Your task to perform on an android device: toggle javascript in the chrome app Image 0: 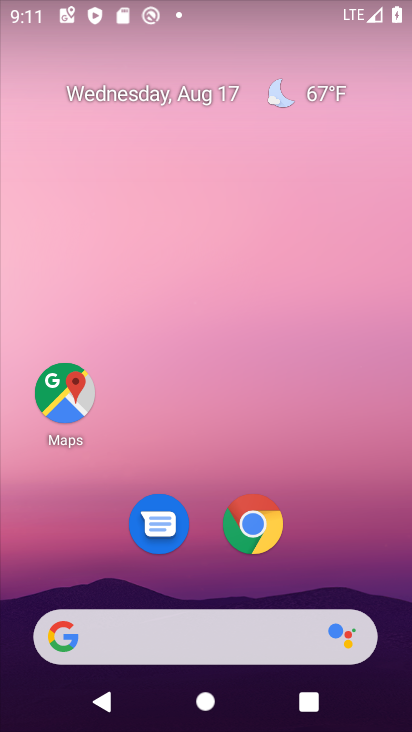
Step 0: click (253, 520)
Your task to perform on an android device: toggle javascript in the chrome app Image 1: 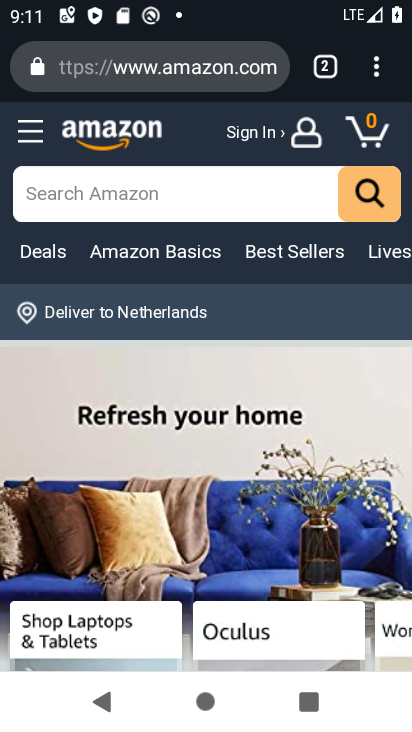
Step 1: press back button
Your task to perform on an android device: toggle javascript in the chrome app Image 2: 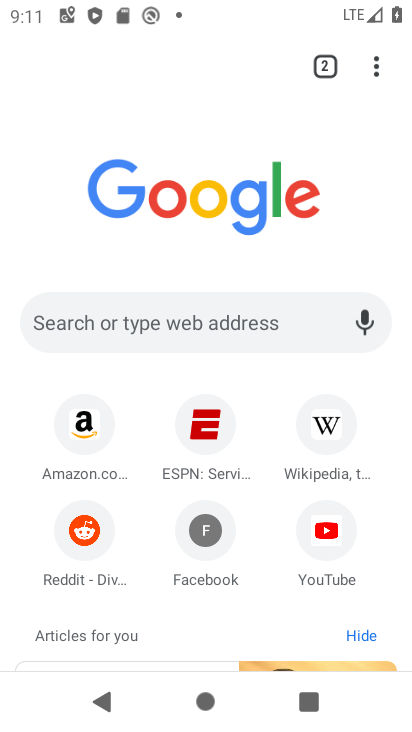
Step 2: click (375, 77)
Your task to perform on an android device: toggle javascript in the chrome app Image 3: 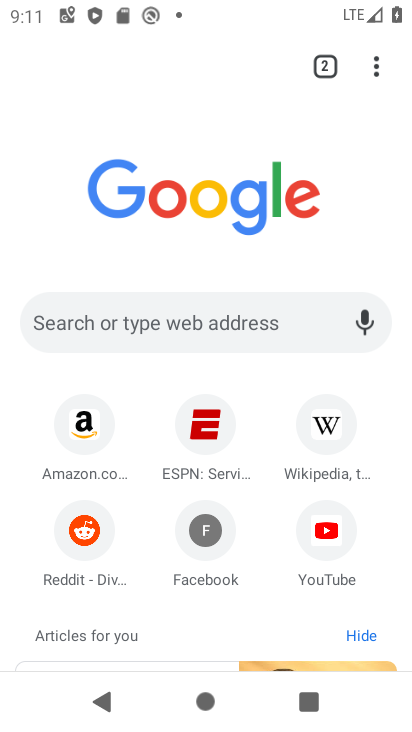
Step 3: click (375, 77)
Your task to perform on an android device: toggle javascript in the chrome app Image 4: 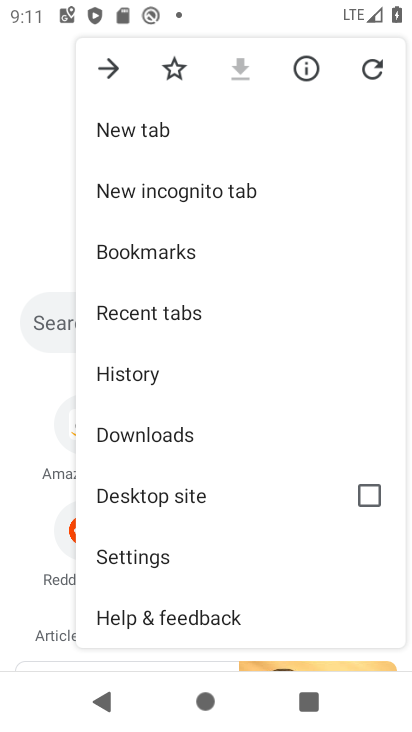
Step 4: click (190, 555)
Your task to perform on an android device: toggle javascript in the chrome app Image 5: 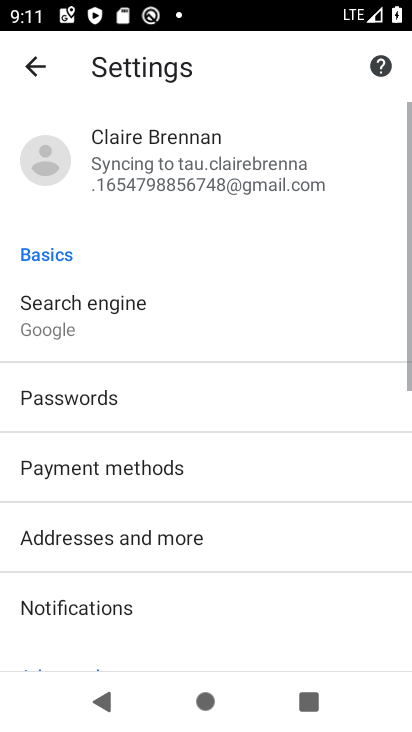
Step 5: drag from (230, 510) to (305, 37)
Your task to perform on an android device: toggle javascript in the chrome app Image 6: 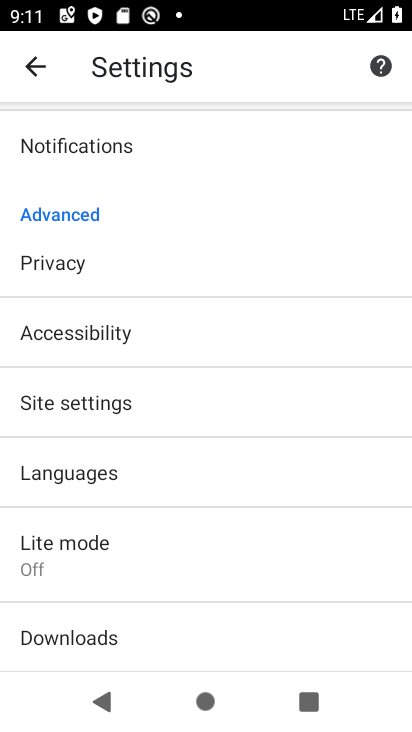
Step 6: click (195, 395)
Your task to perform on an android device: toggle javascript in the chrome app Image 7: 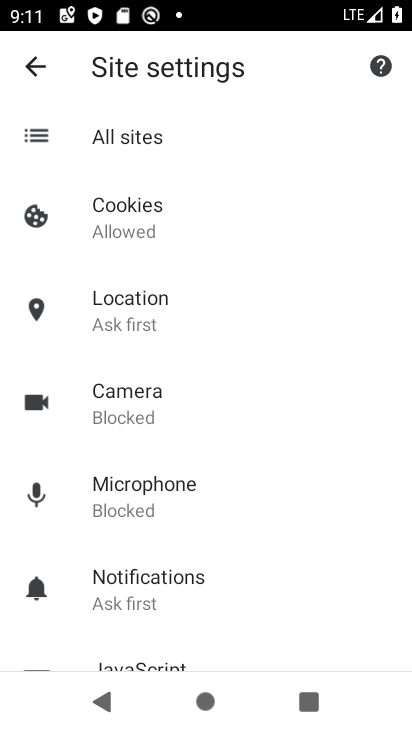
Step 7: drag from (202, 538) to (244, 199)
Your task to perform on an android device: toggle javascript in the chrome app Image 8: 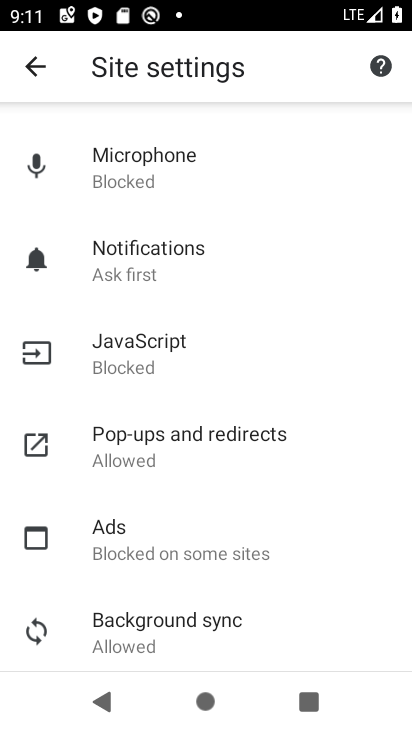
Step 8: click (201, 348)
Your task to perform on an android device: toggle javascript in the chrome app Image 9: 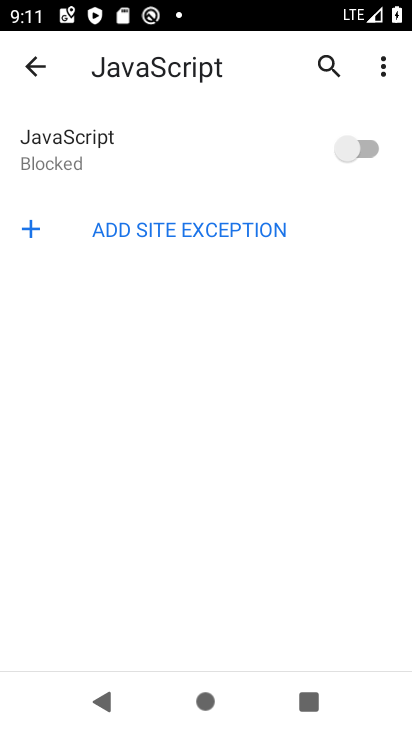
Step 9: click (359, 142)
Your task to perform on an android device: toggle javascript in the chrome app Image 10: 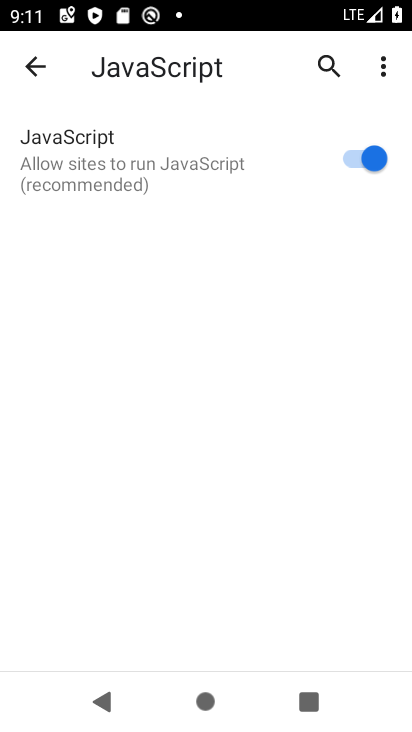
Step 10: task complete